Your task to perform on an android device: Open sound settings Image 0: 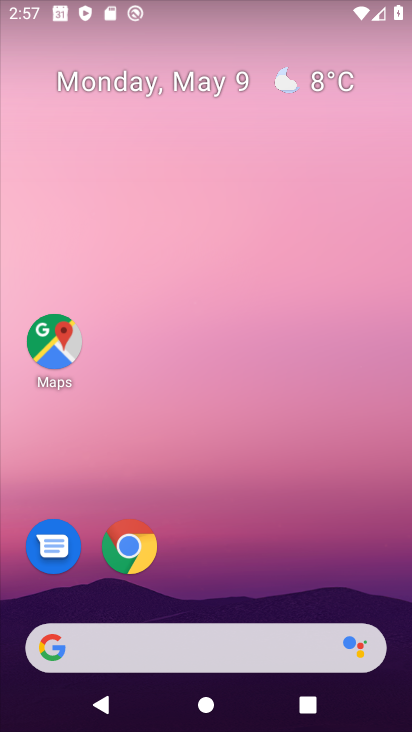
Step 0: drag from (311, 513) to (286, 40)
Your task to perform on an android device: Open sound settings Image 1: 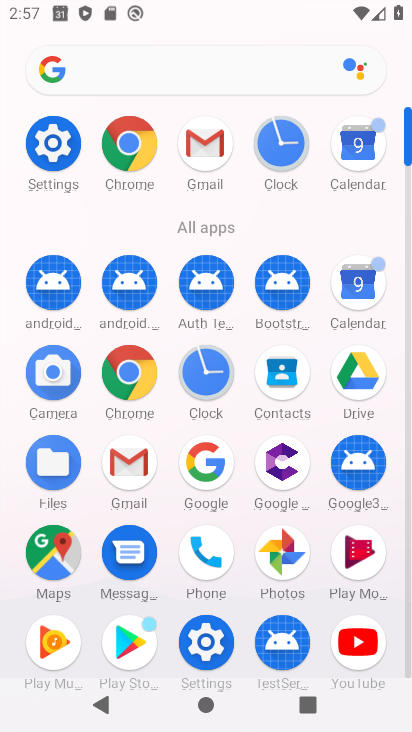
Step 1: click (42, 133)
Your task to perform on an android device: Open sound settings Image 2: 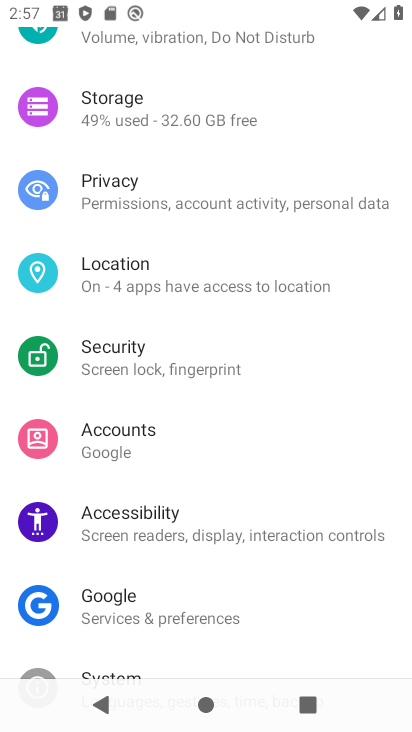
Step 2: drag from (236, 171) to (245, 673)
Your task to perform on an android device: Open sound settings Image 3: 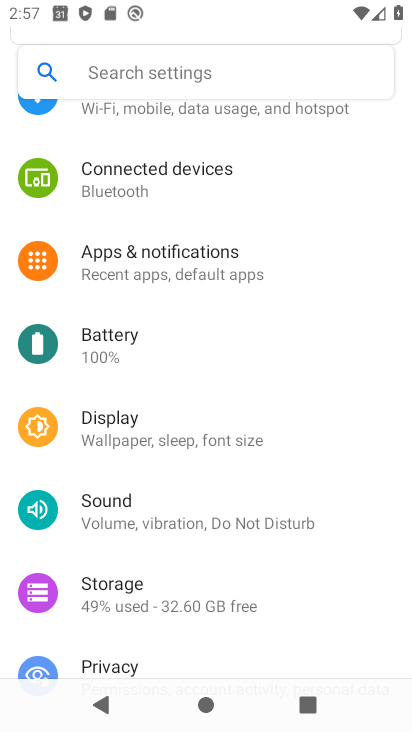
Step 3: click (236, 503)
Your task to perform on an android device: Open sound settings Image 4: 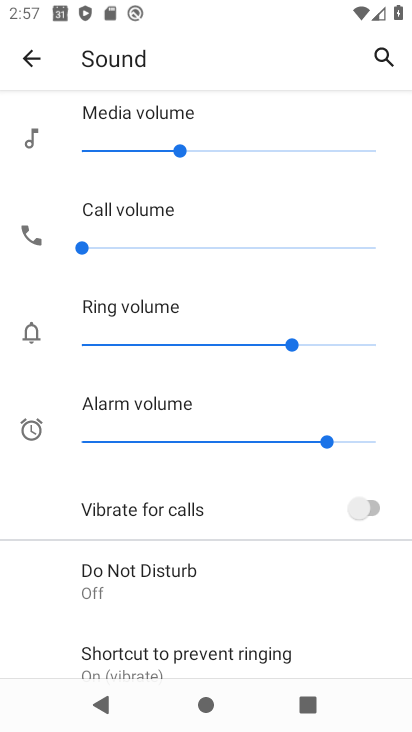
Step 4: task complete